Your task to perform on an android device: set the timer Image 0: 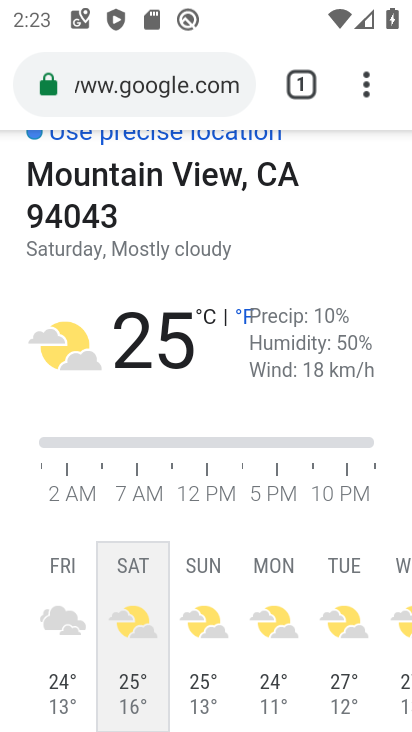
Step 0: press home button
Your task to perform on an android device: set the timer Image 1: 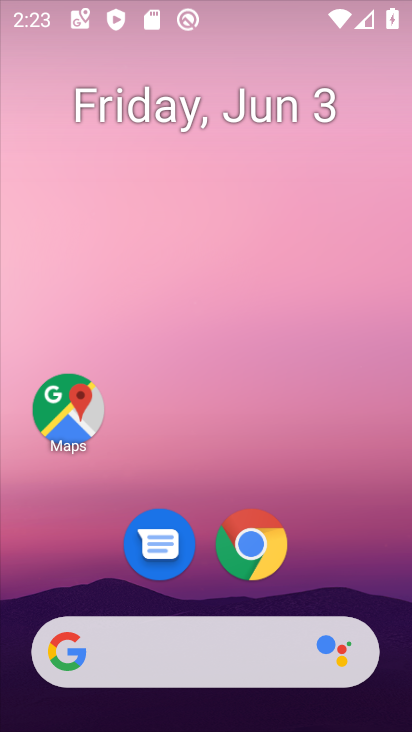
Step 1: drag from (322, 569) to (348, 233)
Your task to perform on an android device: set the timer Image 2: 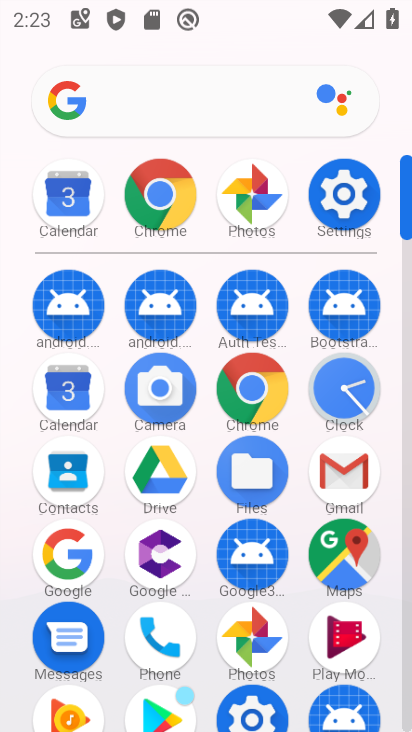
Step 2: click (357, 388)
Your task to perform on an android device: set the timer Image 3: 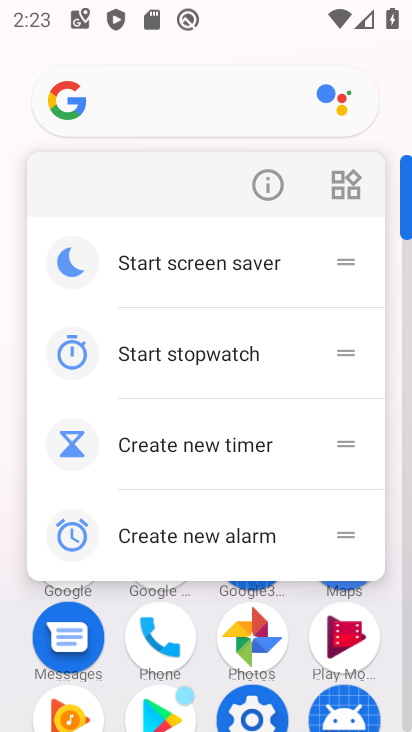
Step 3: drag from (297, 614) to (302, 556)
Your task to perform on an android device: set the timer Image 4: 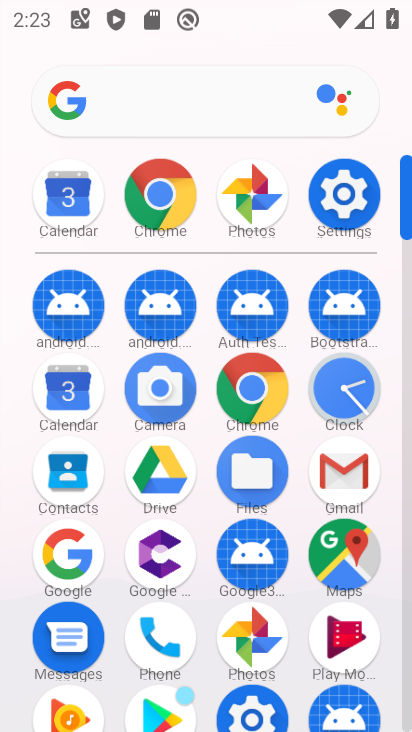
Step 4: click (343, 390)
Your task to perform on an android device: set the timer Image 5: 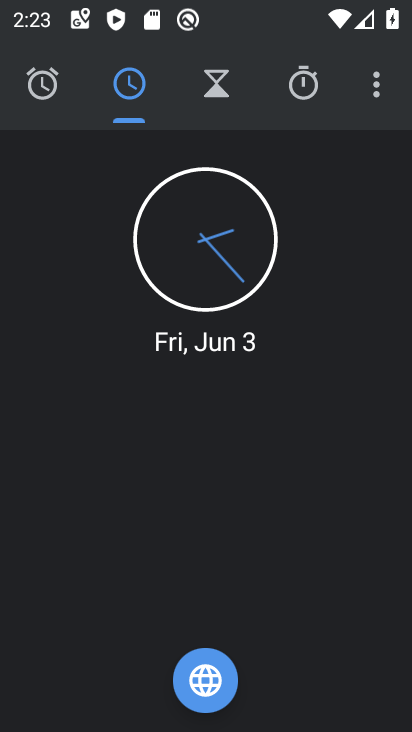
Step 5: click (213, 92)
Your task to perform on an android device: set the timer Image 6: 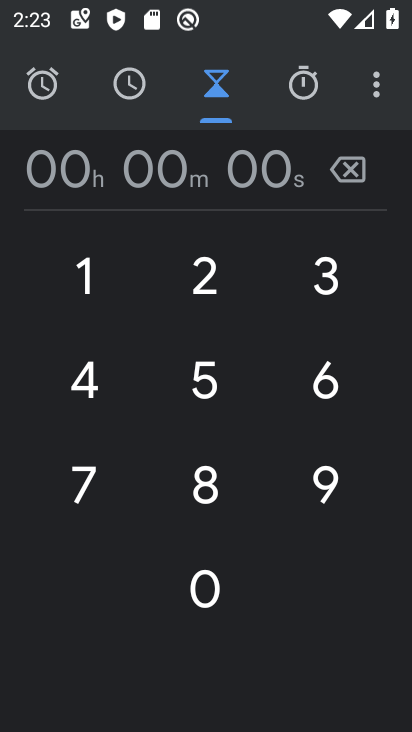
Step 6: click (113, 267)
Your task to perform on an android device: set the timer Image 7: 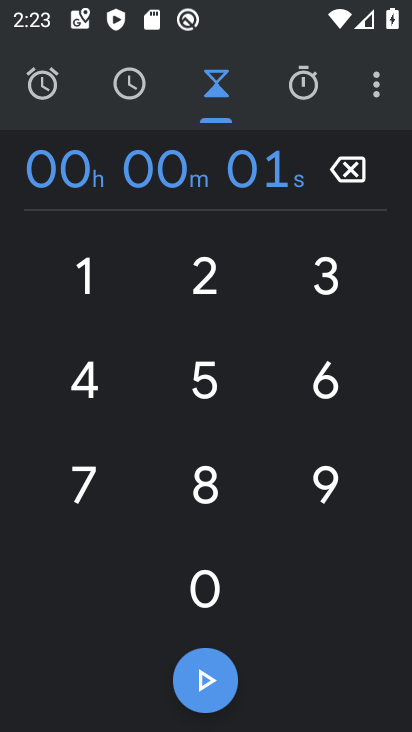
Step 7: click (184, 274)
Your task to perform on an android device: set the timer Image 8: 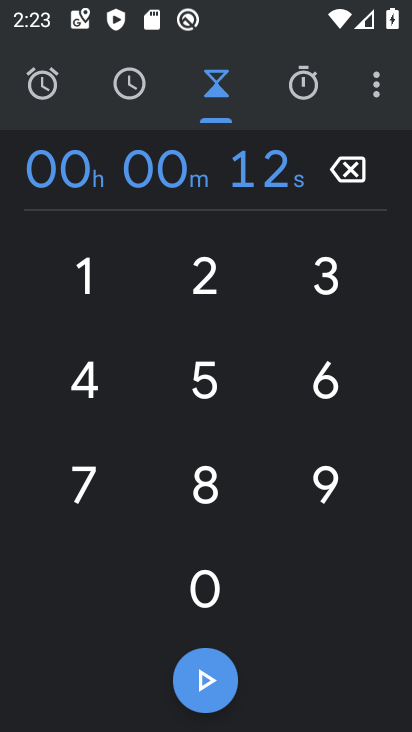
Step 8: click (205, 689)
Your task to perform on an android device: set the timer Image 9: 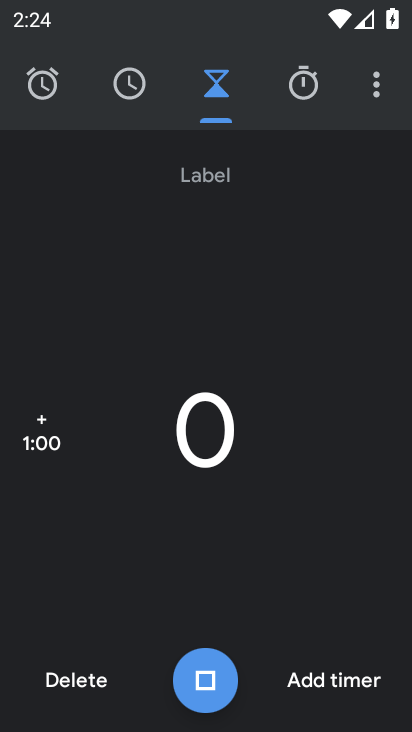
Step 9: click (217, 669)
Your task to perform on an android device: set the timer Image 10: 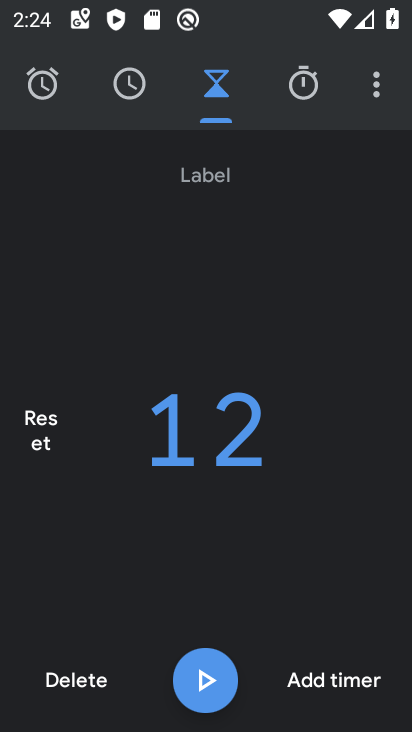
Step 10: click (122, 212)
Your task to perform on an android device: set the timer Image 11: 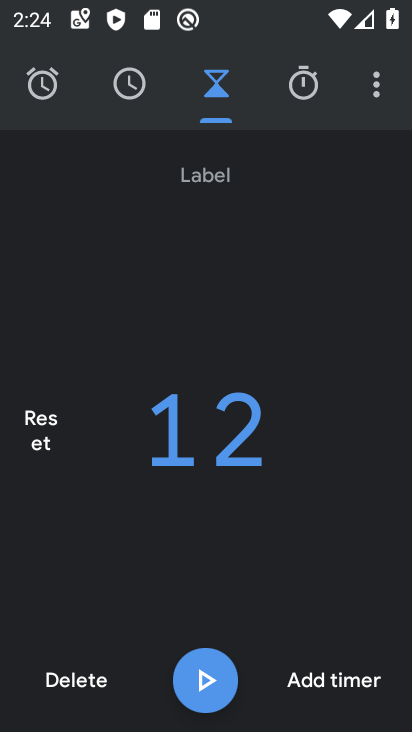
Step 11: task complete